Your task to perform on an android device: turn off location Image 0: 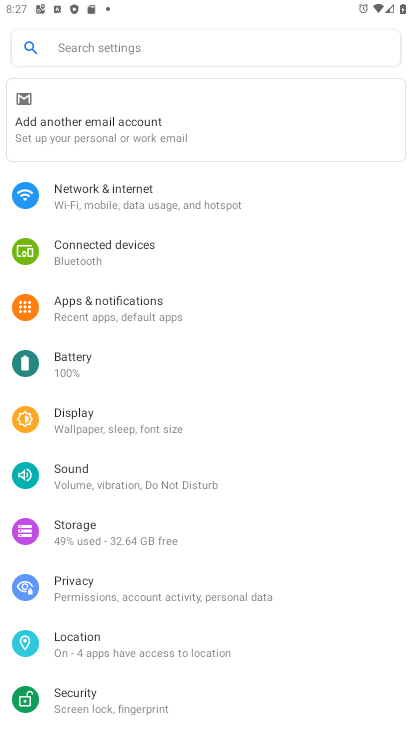
Step 0: click (96, 651)
Your task to perform on an android device: turn off location Image 1: 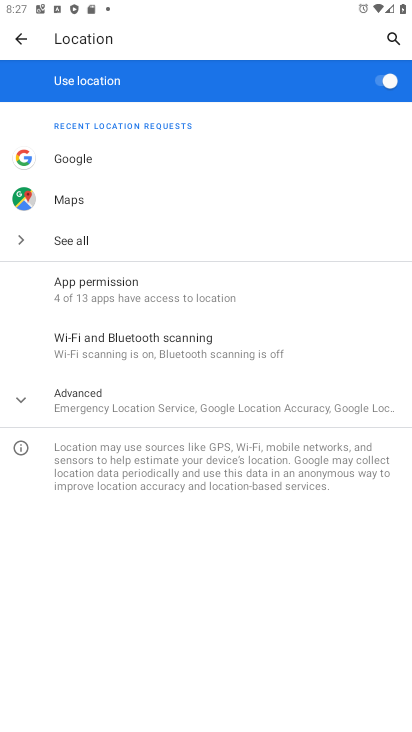
Step 1: click (384, 86)
Your task to perform on an android device: turn off location Image 2: 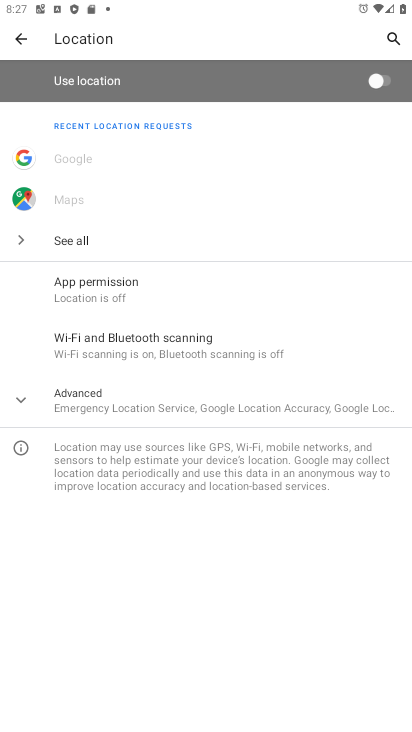
Step 2: task complete